Your task to perform on an android device: all mails in gmail Image 0: 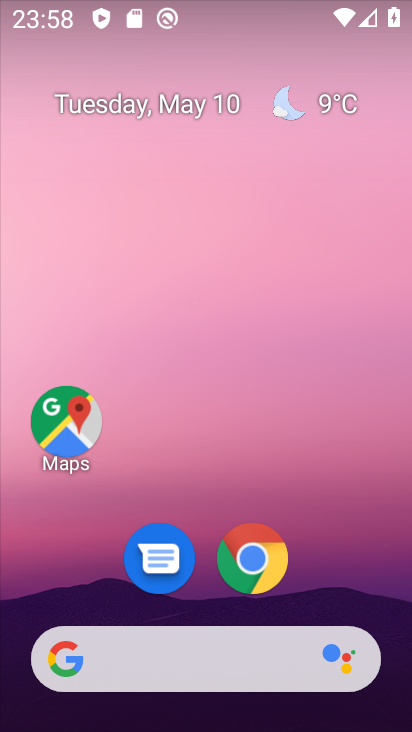
Step 0: drag from (370, 574) to (379, 163)
Your task to perform on an android device: all mails in gmail Image 1: 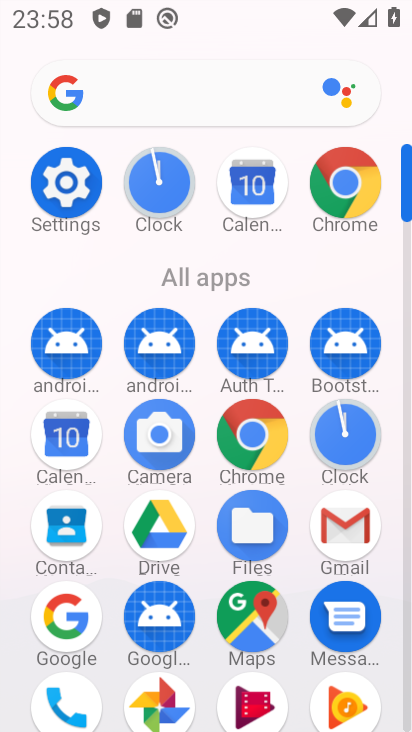
Step 1: click (329, 535)
Your task to perform on an android device: all mails in gmail Image 2: 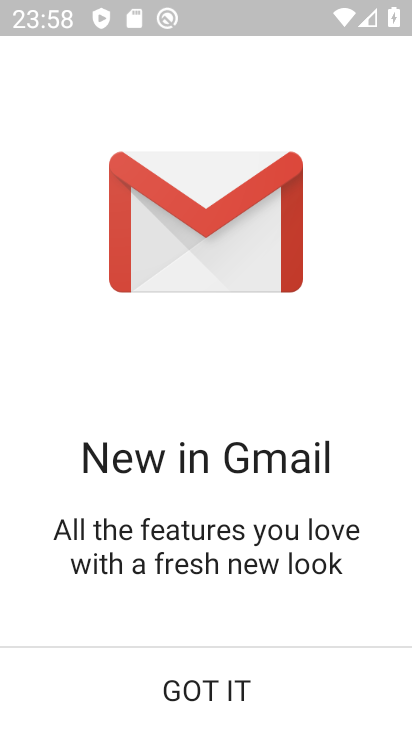
Step 2: click (198, 692)
Your task to perform on an android device: all mails in gmail Image 3: 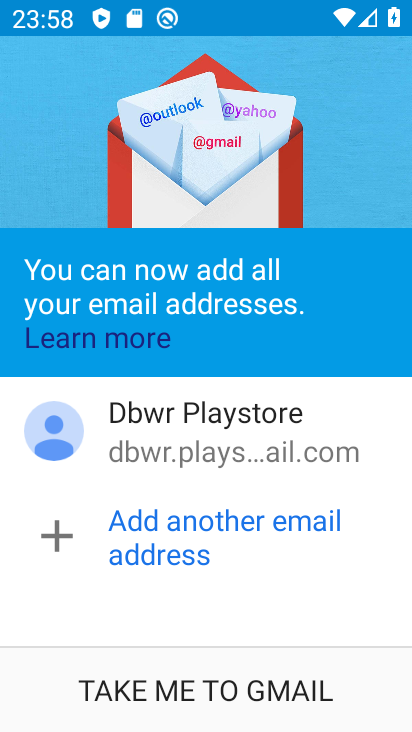
Step 3: click (219, 680)
Your task to perform on an android device: all mails in gmail Image 4: 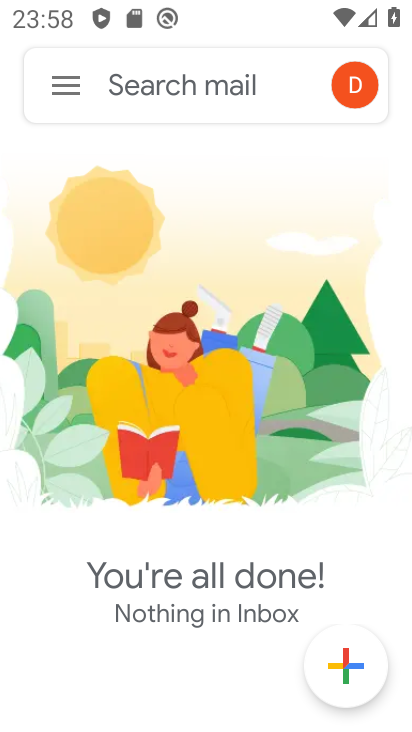
Step 4: click (75, 101)
Your task to perform on an android device: all mails in gmail Image 5: 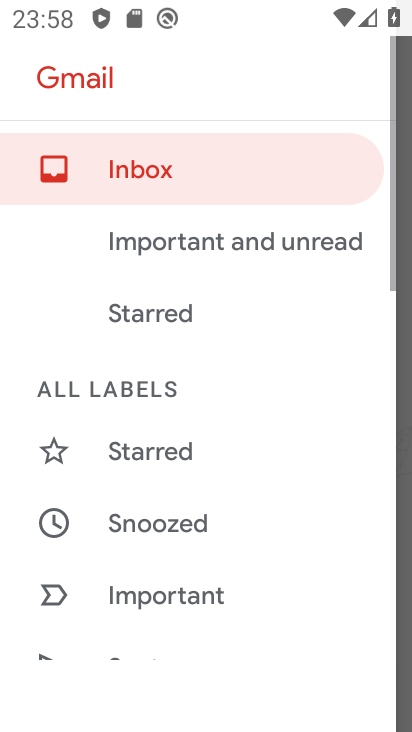
Step 5: drag from (142, 636) to (196, 290)
Your task to perform on an android device: all mails in gmail Image 6: 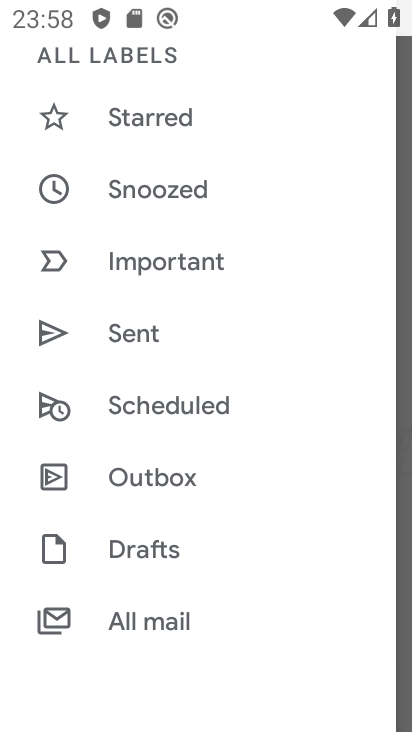
Step 6: click (198, 624)
Your task to perform on an android device: all mails in gmail Image 7: 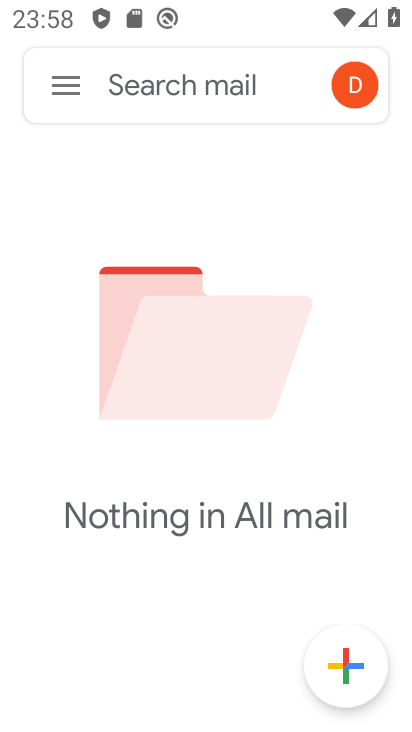
Step 7: task complete